Your task to perform on an android device: turn on wifi Image 0: 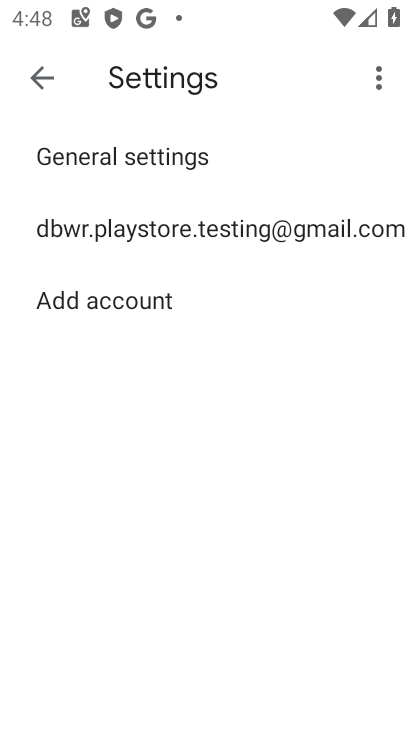
Step 0: press back button
Your task to perform on an android device: turn on wifi Image 1: 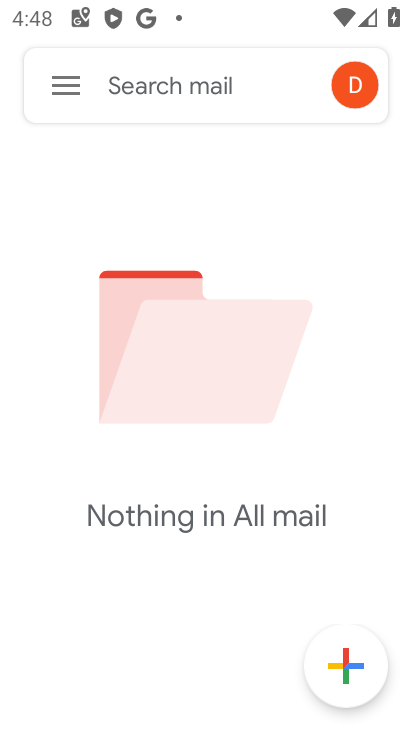
Step 1: task complete